Your task to perform on an android device: Open Google Chrome and click the shortcut for Amazon.com Image 0: 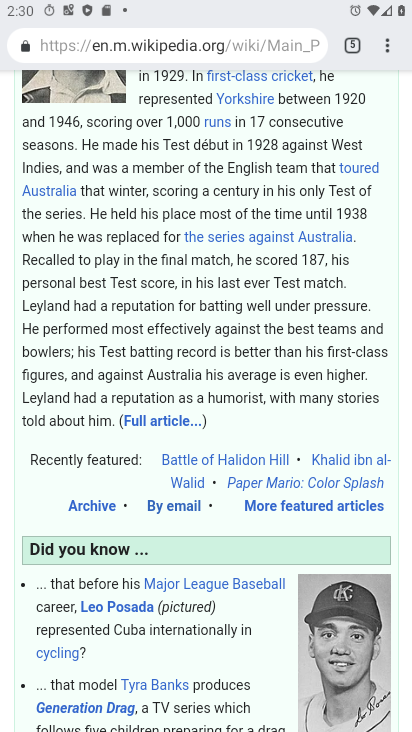
Step 0: press home button
Your task to perform on an android device: Open Google Chrome and click the shortcut for Amazon.com Image 1: 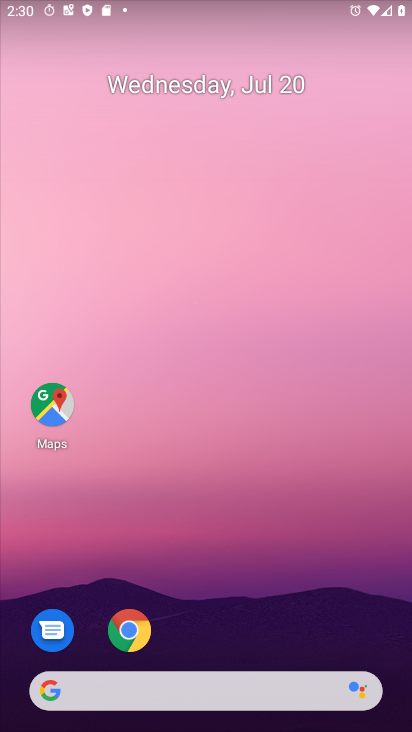
Step 1: click (133, 628)
Your task to perform on an android device: Open Google Chrome and click the shortcut for Amazon.com Image 2: 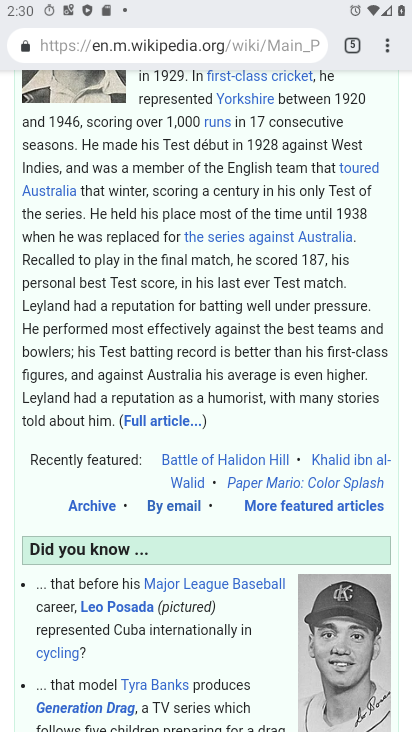
Step 2: drag from (382, 41) to (239, 93)
Your task to perform on an android device: Open Google Chrome and click the shortcut for Amazon.com Image 3: 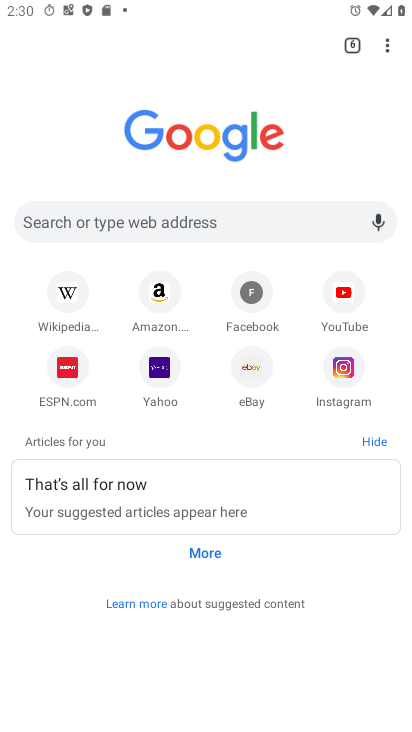
Step 3: click (161, 298)
Your task to perform on an android device: Open Google Chrome and click the shortcut for Amazon.com Image 4: 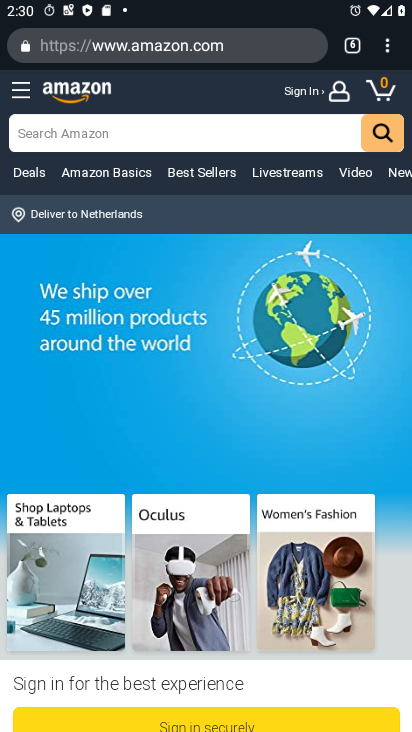
Step 4: task complete